Your task to perform on an android device: Open internet settings Image 0: 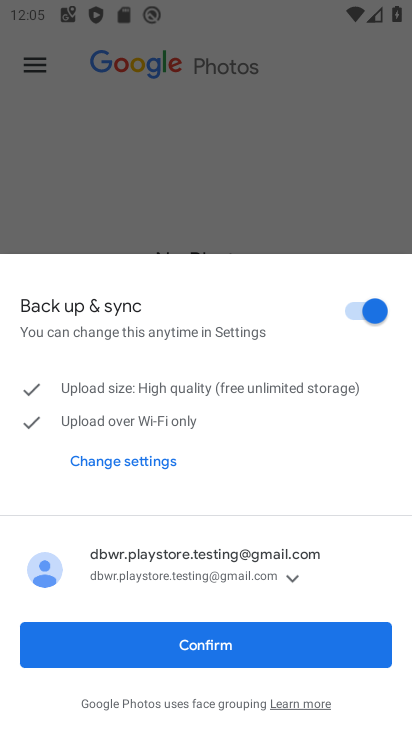
Step 0: click (209, 646)
Your task to perform on an android device: Open internet settings Image 1: 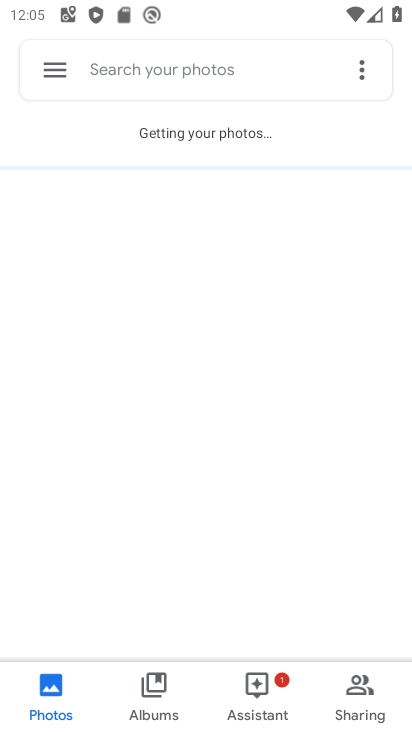
Step 1: press home button
Your task to perform on an android device: Open internet settings Image 2: 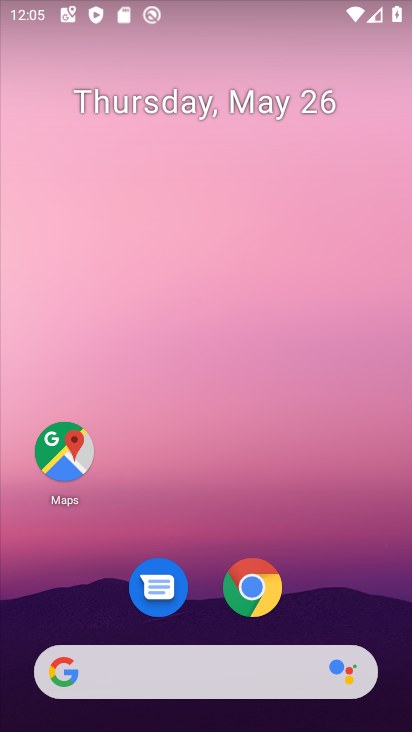
Step 2: drag from (206, 627) to (190, 16)
Your task to perform on an android device: Open internet settings Image 3: 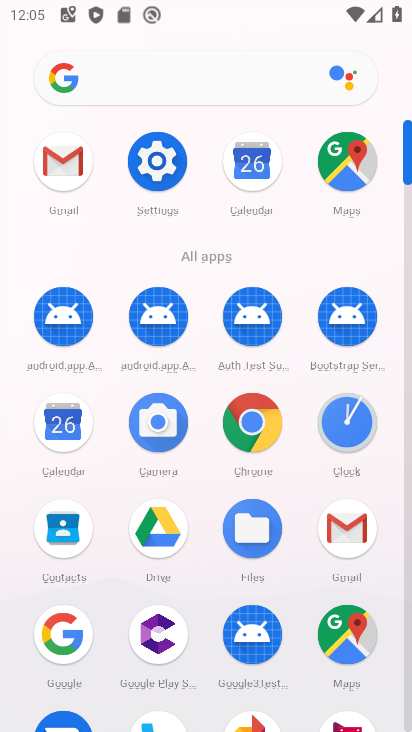
Step 3: click (155, 155)
Your task to perform on an android device: Open internet settings Image 4: 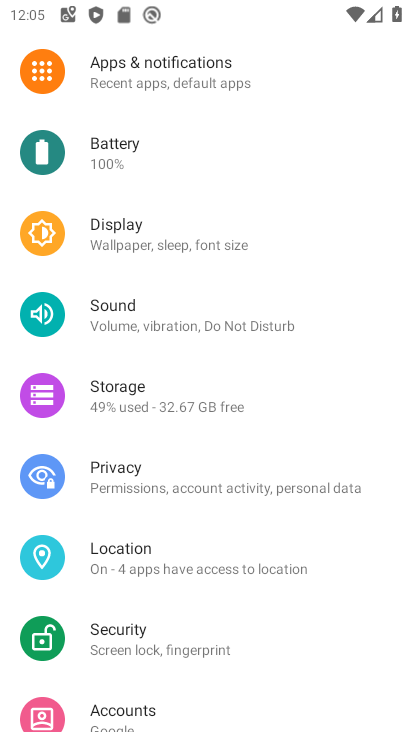
Step 4: drag from (151, 110) to (159, 659)
Your task to perform on an android device: Open internet settings Image 5: 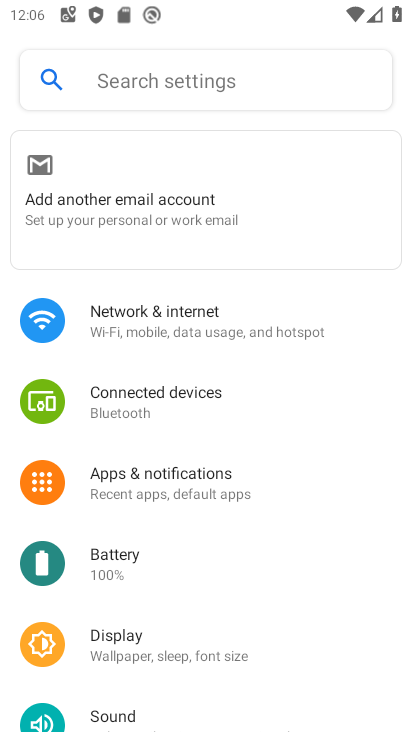
Step 5: click (229, 312)
Your task to perform on an android device: Open internet settings Image 6: 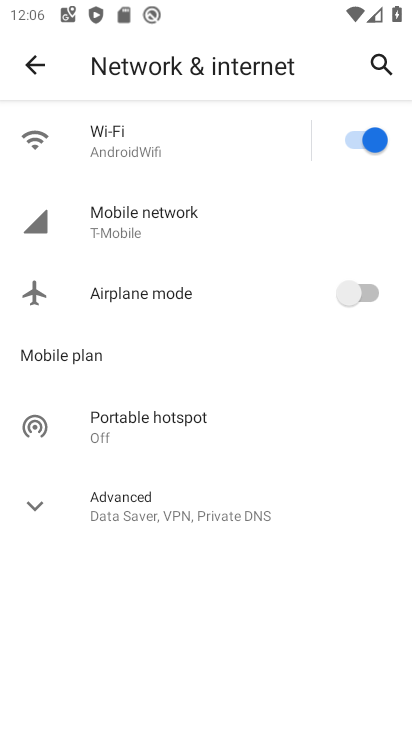
Step 6: click (32, 498)
Your task to perform on an android device: Open internet settings Image 7: 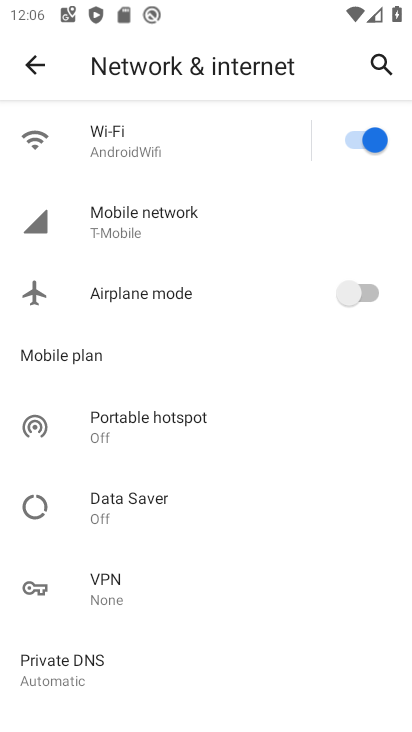
Step 7: task complete